Your task to perform on an android device: Check the weather Image 0: 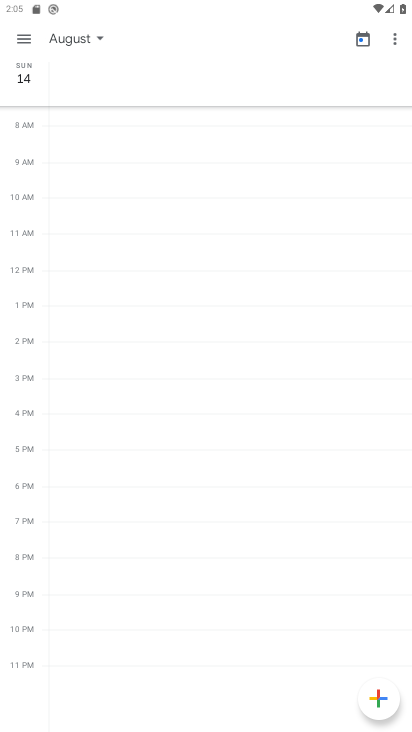
Step 0: press home button
Your task to perform on an android device: Check the weather Image 1: 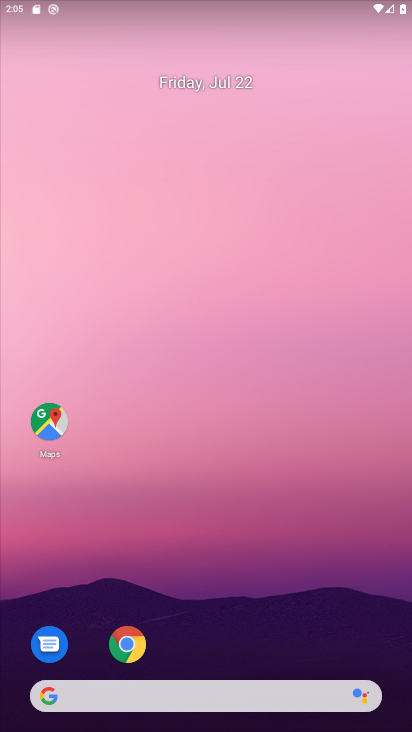
Step 1: click (130, 645)
Your task to perform on an android device: Check the weather Image 2: 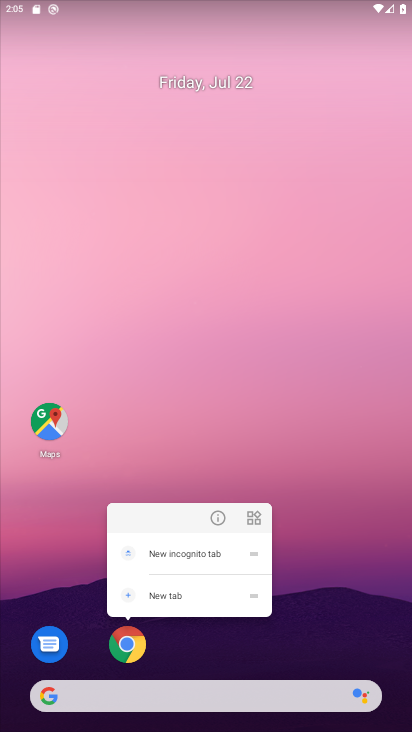
Step 2: click (131, 646)
Your task to perform on an android device: Check the weather Image 3: 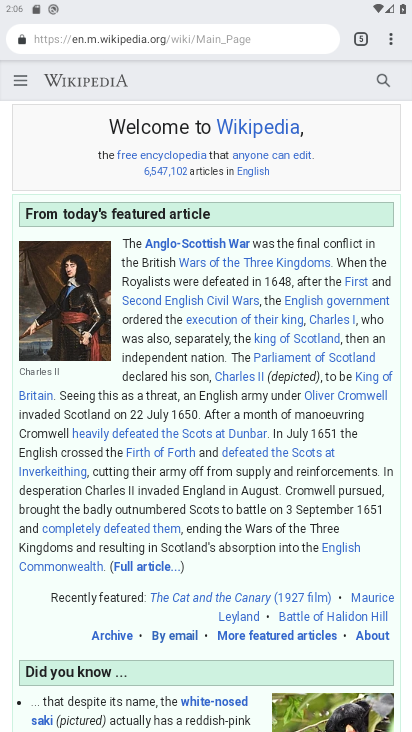
Step 3: click (405, 39)
Your task to perform on an android device: Check the weather Image 4: 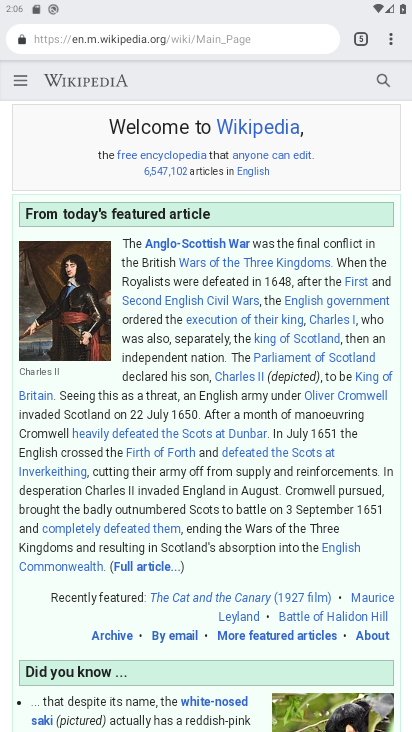
Step 4: click (400, 30)
Your task to perform on an android device: Check the weather Image 5: 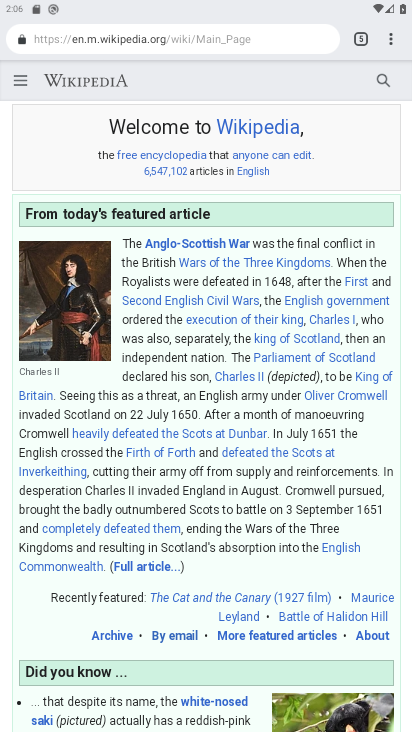
Step 5: click (393, 29)
Your task to perform on an android device: Check the weather Image 6: 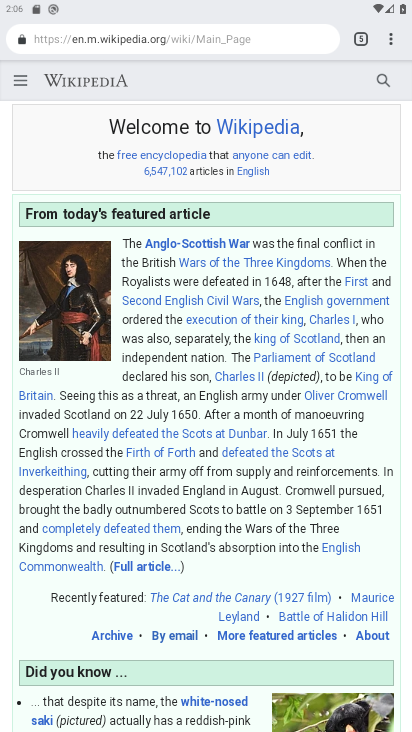
Step 6: click (393, 40)
Your task to perform on an android device: Check the weather Image 7: 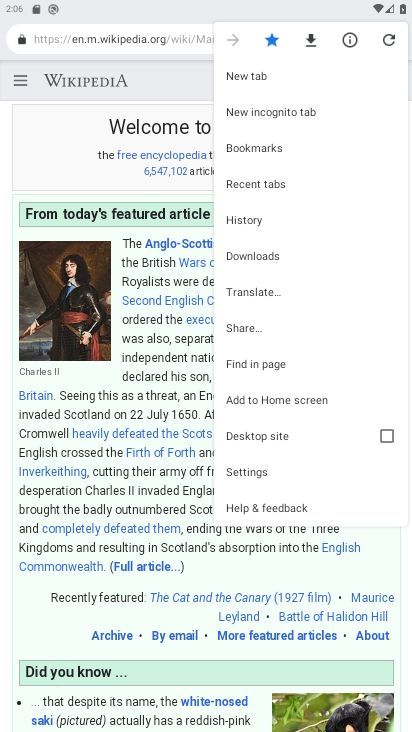
Step 7: click (272, 71)
Your task to perform on an android device: Check the weather Image 8: 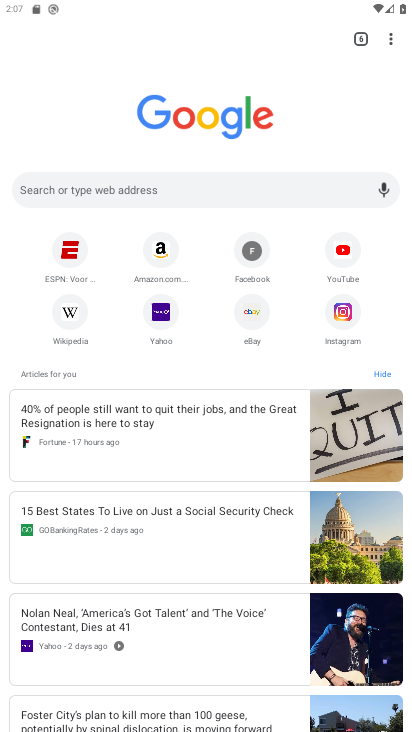
Step 8: click (131, 191)
Your task to perform on an android device: Check the weather Image 9: 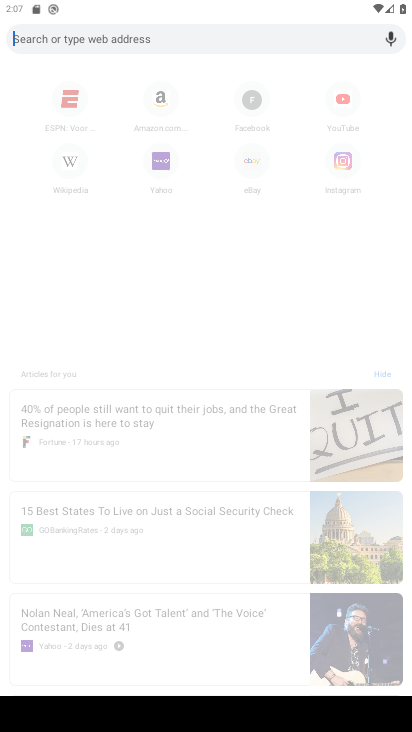
Step 9: type "Check the weather "
Your task to perform on an android device: Check the weather Image 10: 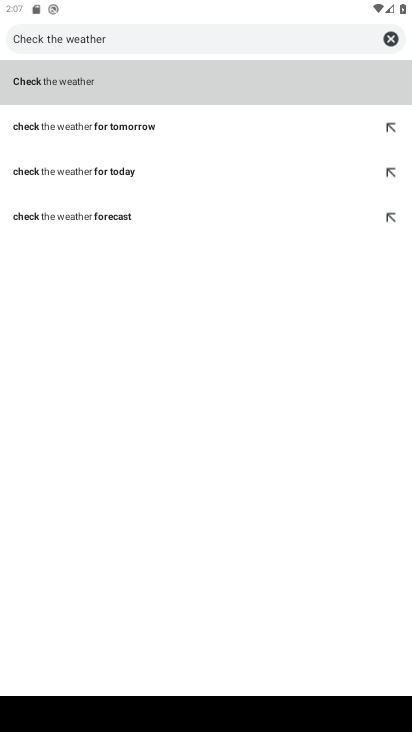
Step 10: click (70, 77)
Your task to perform on an android device: Check the weather Image 11: 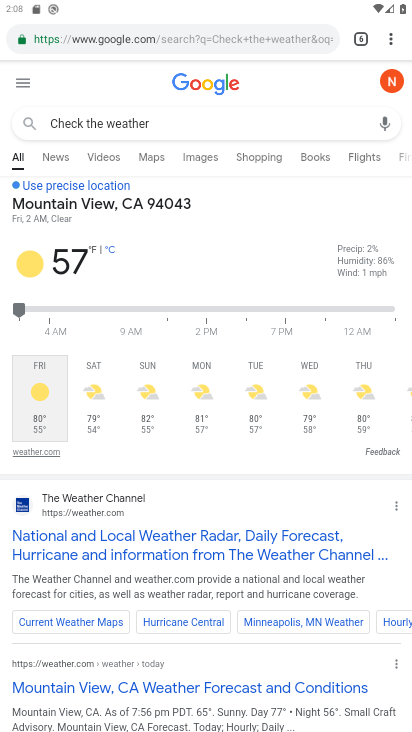
Step 11: task complete